Your task to perform on an android device: Open Android settings Image 0: 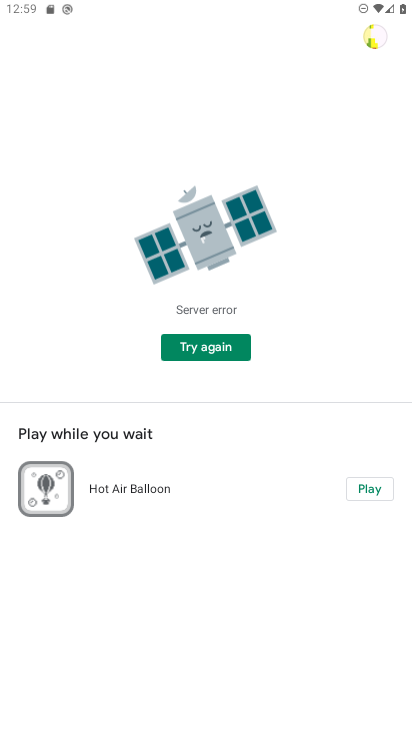
Step 0: press home button
Your task to perform on an android device: Open Android settings Image 1: 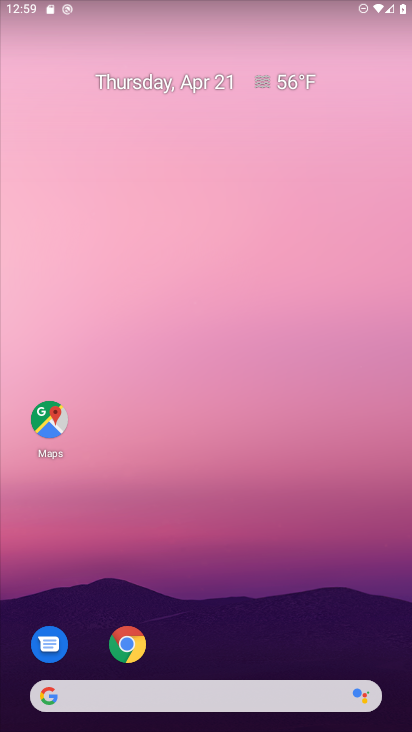
Step 1: drag from (191, 672) to (206, 140)
Your task to perform on an android device: Open Android settings Image 2: 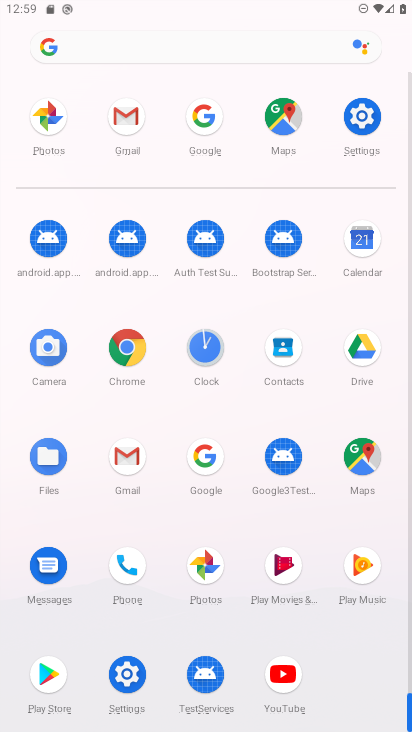
Step 2: click (364, 113)
Your task to perform on an android device: Open Android settings Image 3: 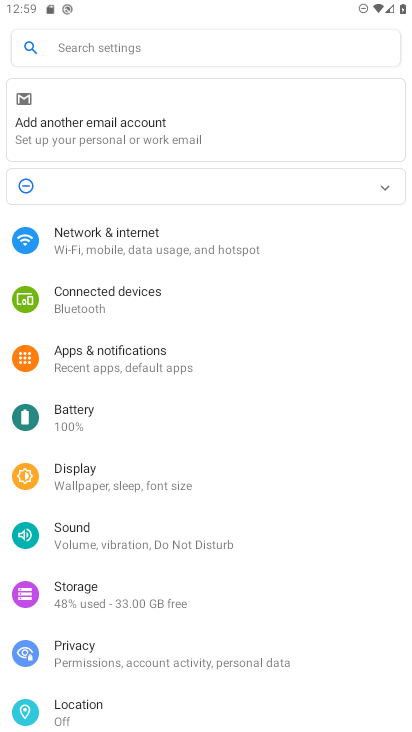
Step 3: drag from (155, 593) to (187, 206)
Your task to perform on an android device: Open Android settings Image 4: 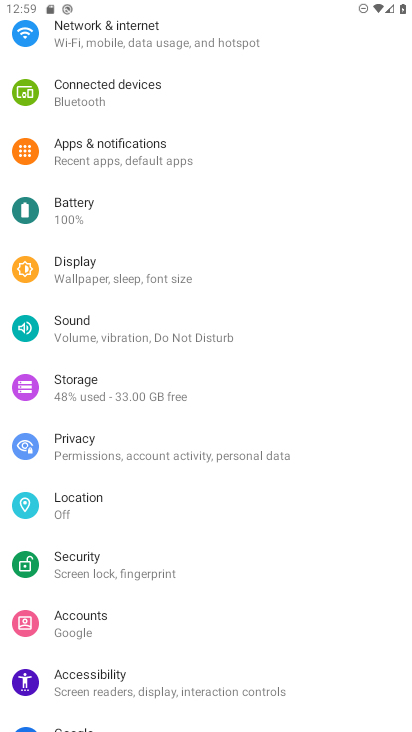
Step 4: drag from (132, 517) to (157, 263)
Your task to perform on an android device: Open Android settings Image 5: 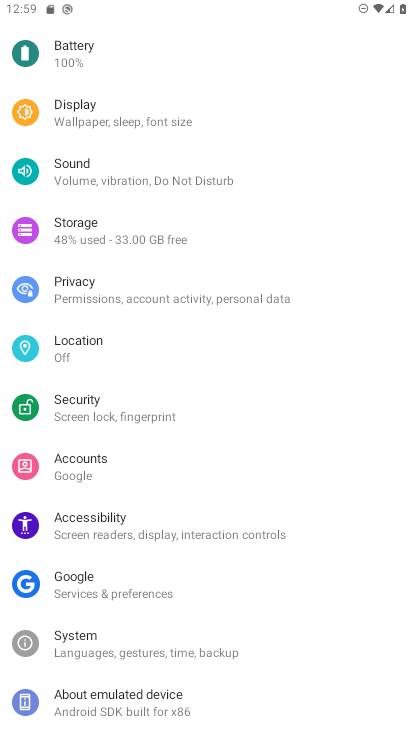
Step 5: click (114, 700)
Your task to perform on an android device: Open Android settings Image 6: 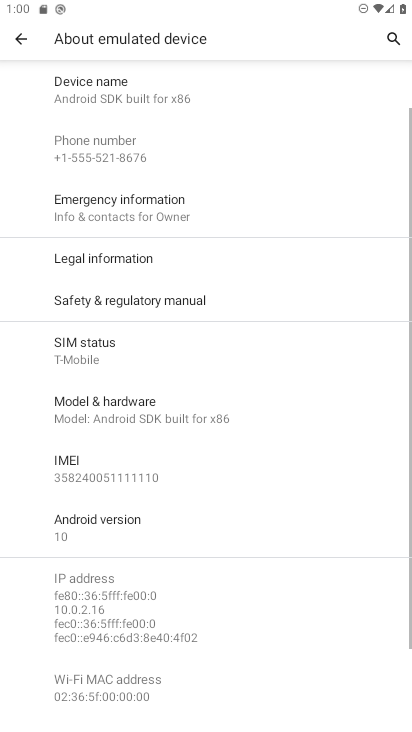
Step 6: click (123, 532)
Your task to perform on an android device: Open Android settings Image 7: 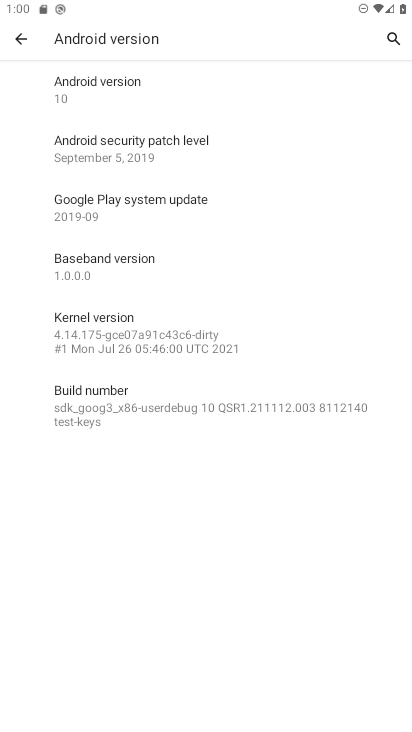
Step 7: task complete